Your task to perform on an android device: open wifi settings Image 0: 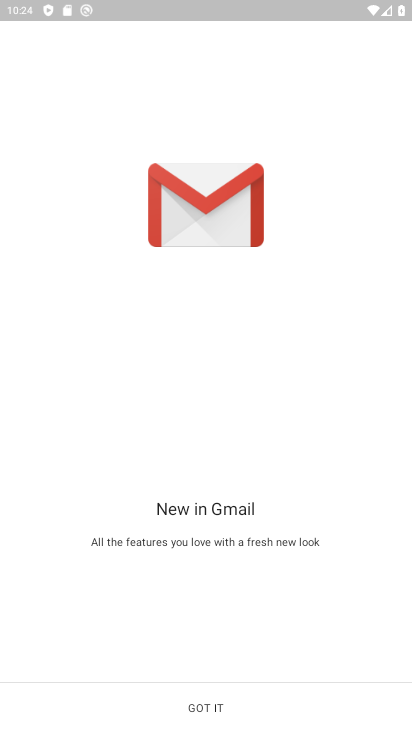
Step 0: press home button
Your task to perform on an android device: open wifi settings Image 1: 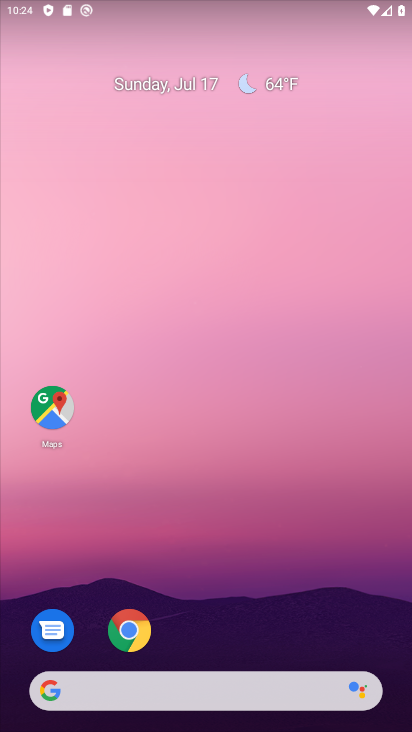
Step 1: drag from (368, 633) to (324, 25)
Your task to perform on an android device: open wifi settings Image 2: 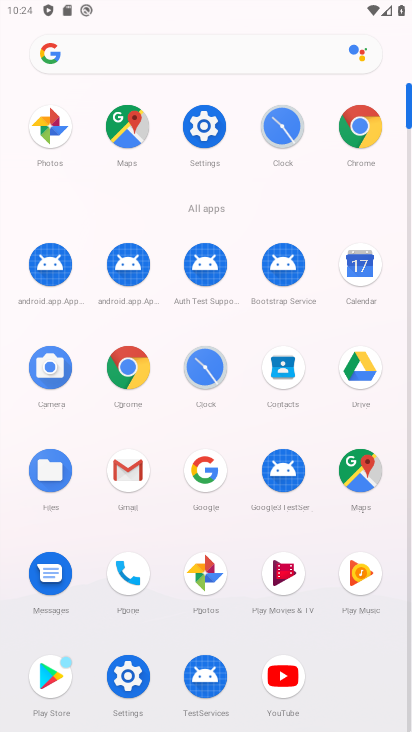
Step 2: click (129, 678)
Your task to perform on an android device: open wifi settings Image 3: 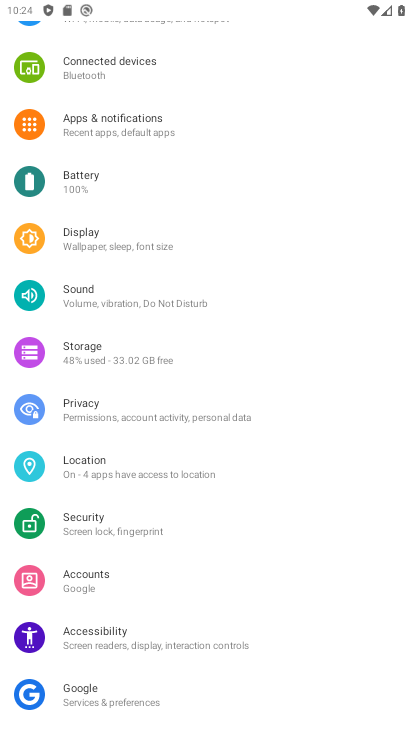
Step 3: drag from (329, 119) to (322, 442)
Your task to perform on an android device: open wifi settings Image 4: 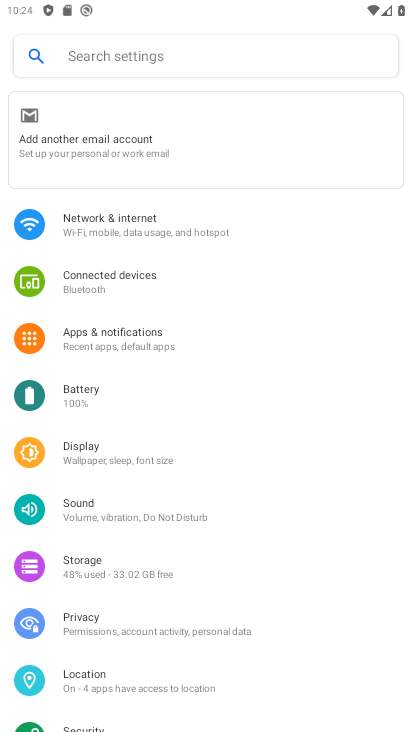
Step 4: click (108, 213)
Your task to perform on an android device: open wifi settings Image 5: 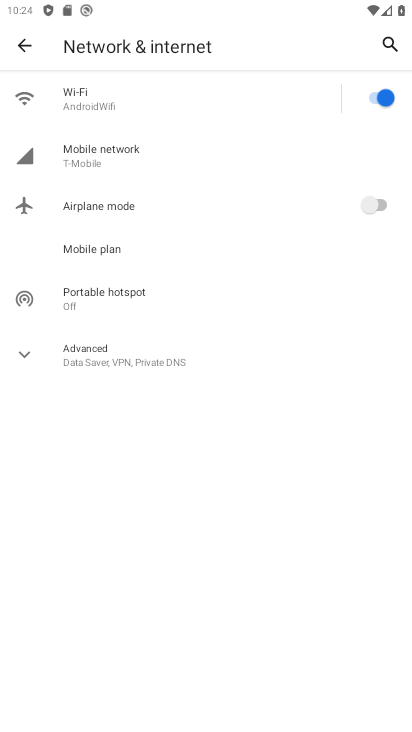
Step 5: click (75, 94)
Your task to perform on an android device: open wifi settings Image 6: 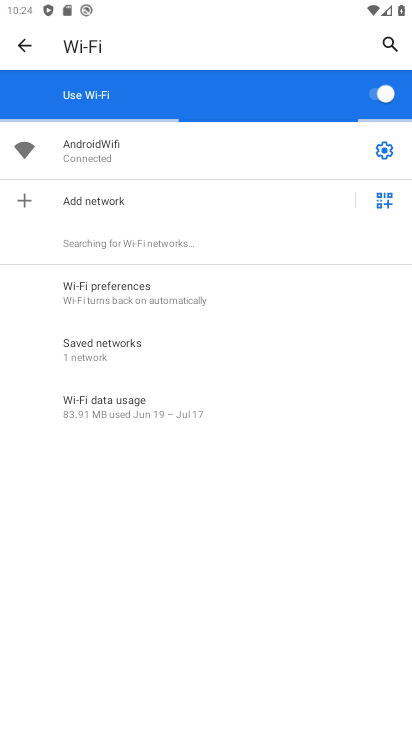
Step 6: click (385, 152)
Your task to perform on an android device: open wifi settings Image 7: 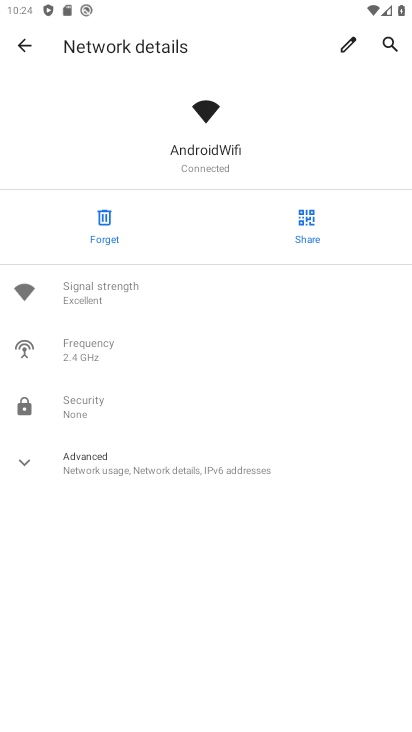
Step 7: task complete